Your task to perform on an android device: change the upload size in google photos Image 0: 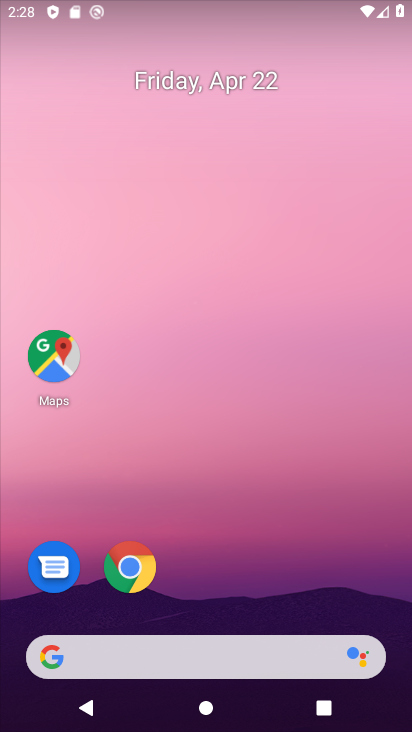
Step 0: drag from (230, 434) to (204, 120)
Your task to perform on an android device: change the upload size in google photos Image 1: 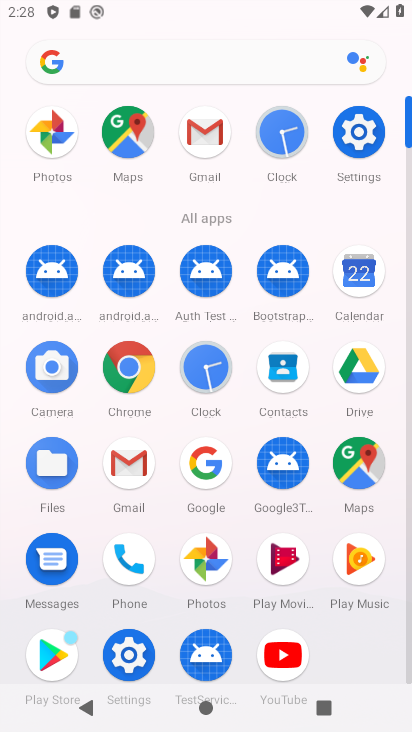
Step 1: drag from (174, 368) to (165, 272)
Your task to perform on an android device: change the upload size in google photos Image 2: 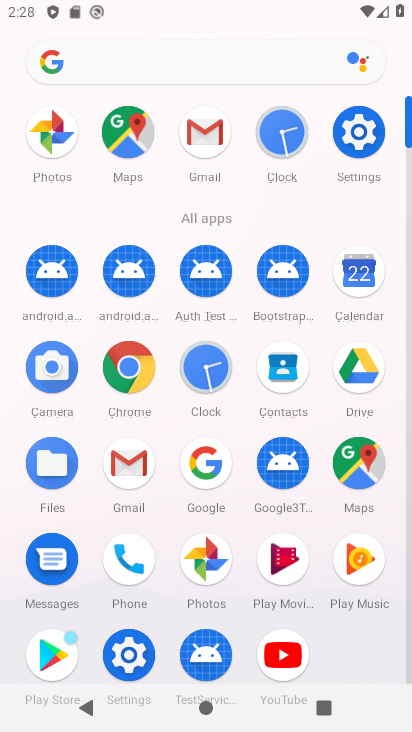
Step 2: click (192, 540)
Your task to perform on an android device: change the upload size in google photos Image 3: 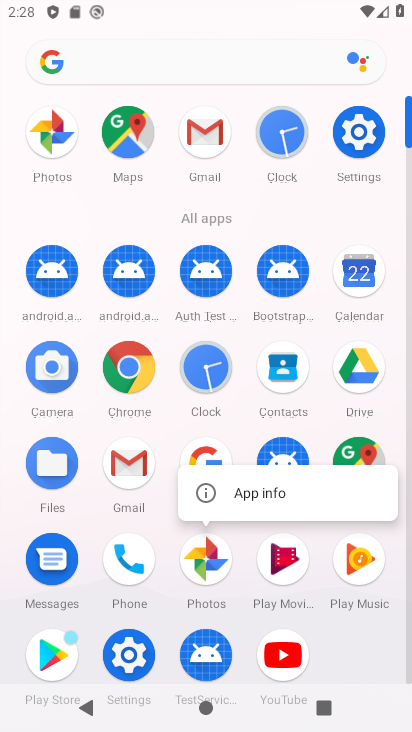
Step 3: click (205, 561)
Your task to perform on an android device: change the upload size in google photos Image 4: 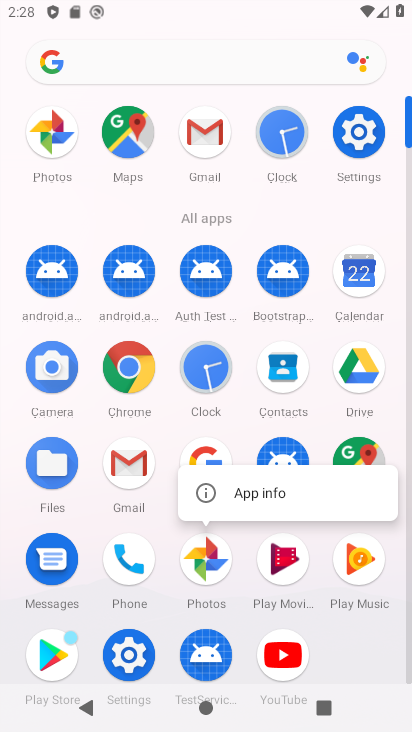
Step 4: click (204, 554)
Your task to perform on an android device: change the upload size in google photos Image 5: 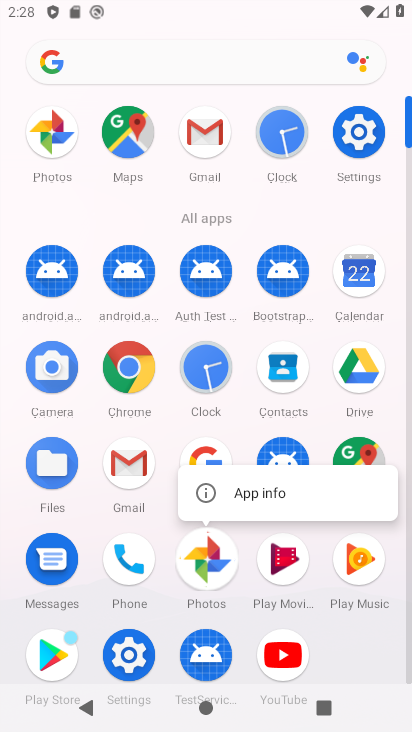
Step 5: click (214, 553)
Your task to perform on an android device: change the upload size in google photos Image 6: 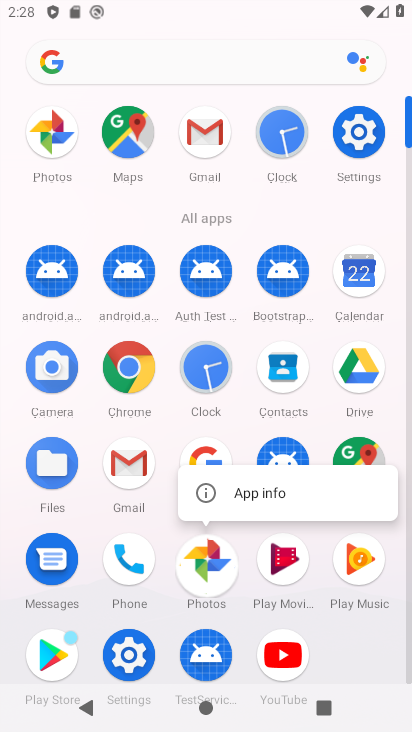
Step 6: click (214, 560)
Your task to perform on an android device: change the upload size in google photos Image 7: 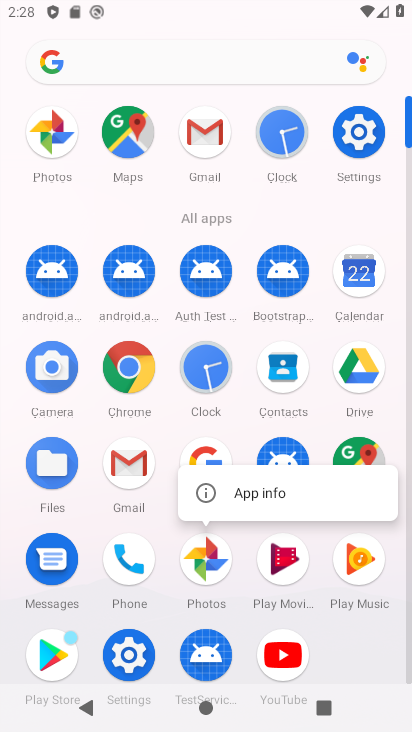
Step 7: click (210, 555)
Your task to perform on an android device: change the upload size in google photos Image 8: 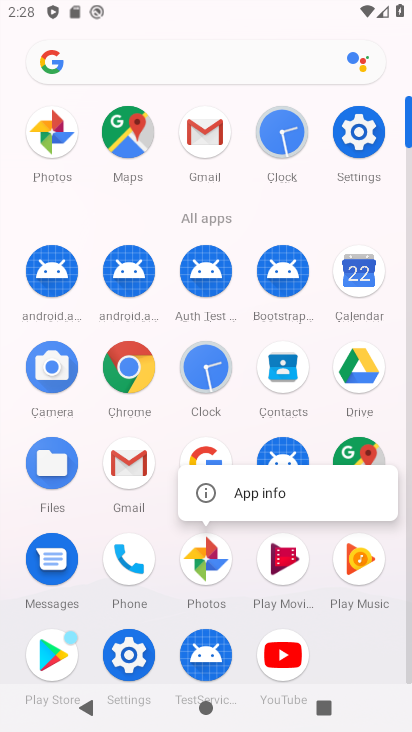
Step 8: click (202, 553)
Your task to perform on an android device: change the upload size in google photos Image 9: 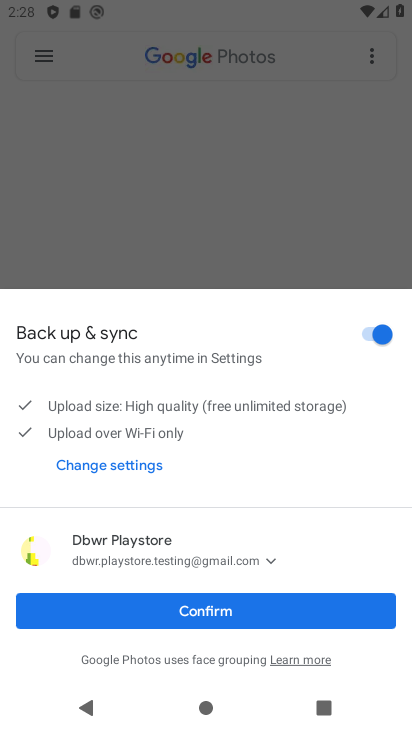
Step 9: click (219, 610)
Your task to perform on an android device: change the upload size in google photos Image 10: 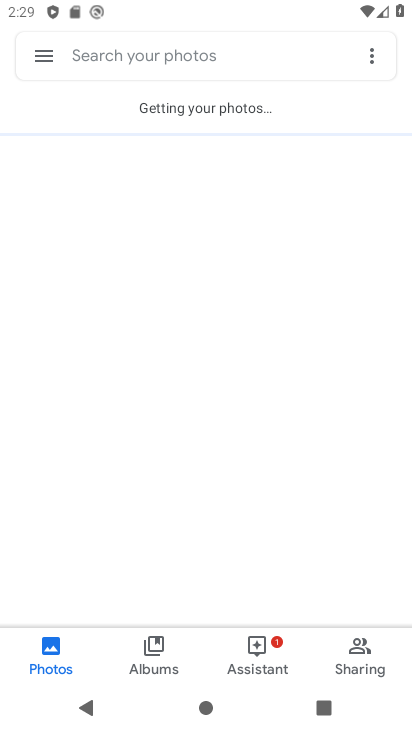
Step 10: click (42, 646)
Your task to perform on an android device: change the upload size in google photos Image 11: 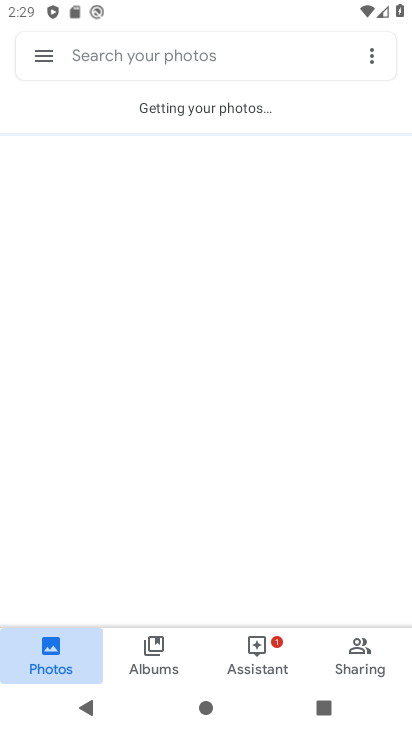
Step 11: click (146, 368)
Your task to perform on an android device: change the upload size in google photos Image 12: 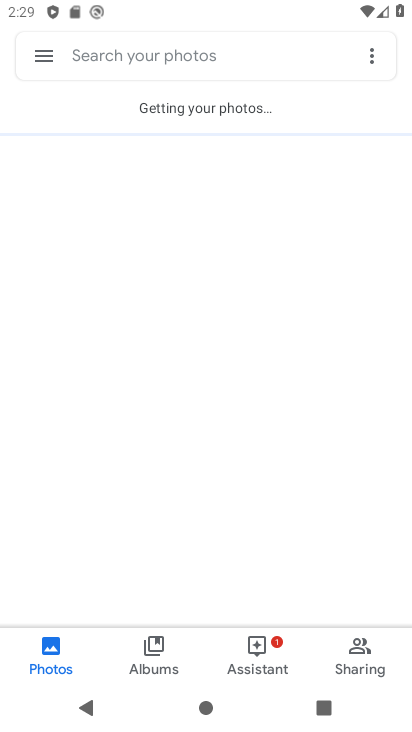
Step 12: click (254, 242)
Your task to perform on an android device: change the upload size in google photos Image 13: 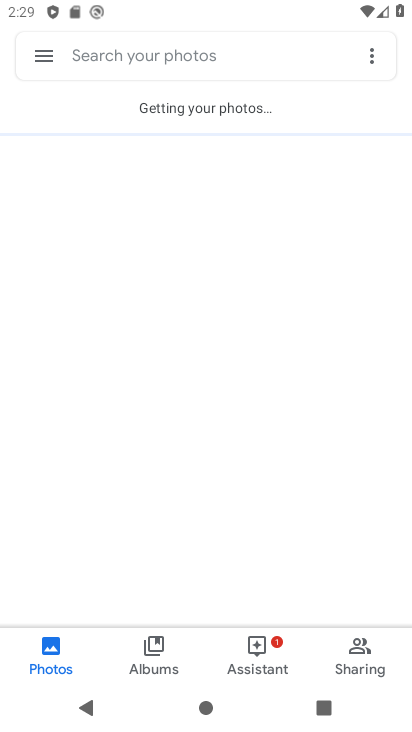
Step 13: drag from (36, 44) to (36, 438)
Your task to perform on an android device: change the upload size in google photos Image 14: 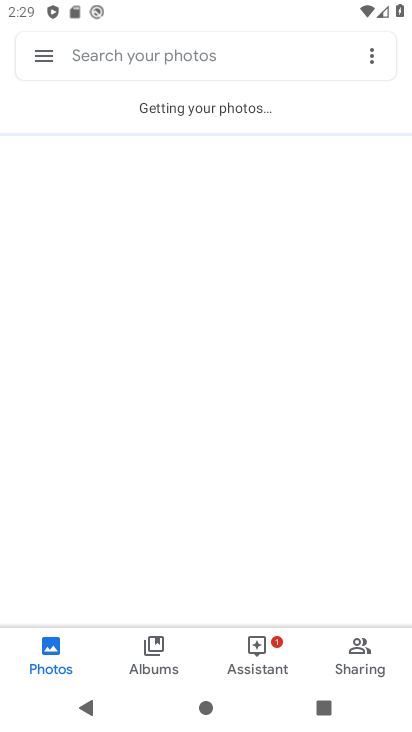
Step 14: click (43, 58)
Your task to perform on an android device: change the upload size in google photos Image 15: 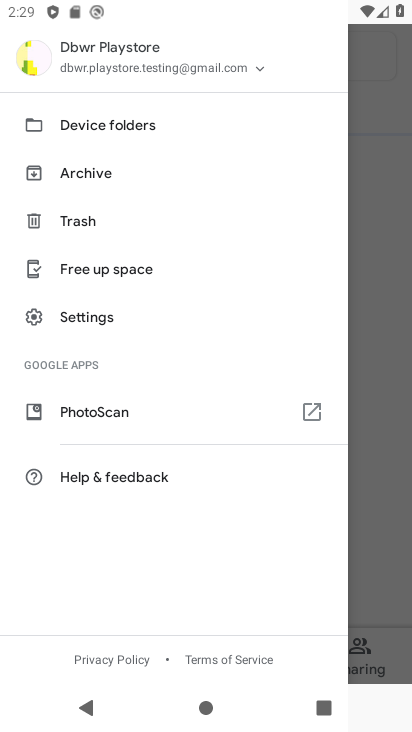
Step 15: click (89, 310)
Your task to perform on an android device: change the upload size in google photos Image 16: 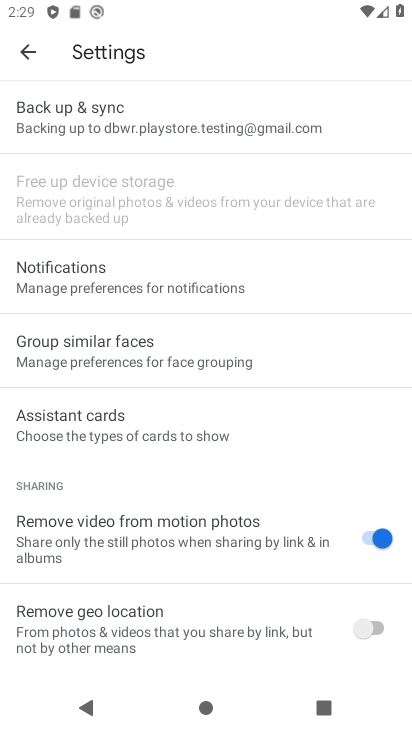
Step 16: click (95, 120)
Your task to perform on an android device: change the upload size in google photos Image 17: 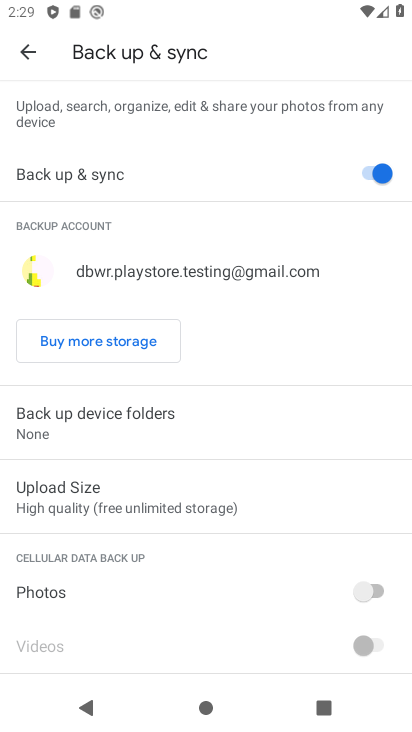
Step 17: click (106, 112)
Your task to perform on an android device: change the upload size in google photos Image 18: 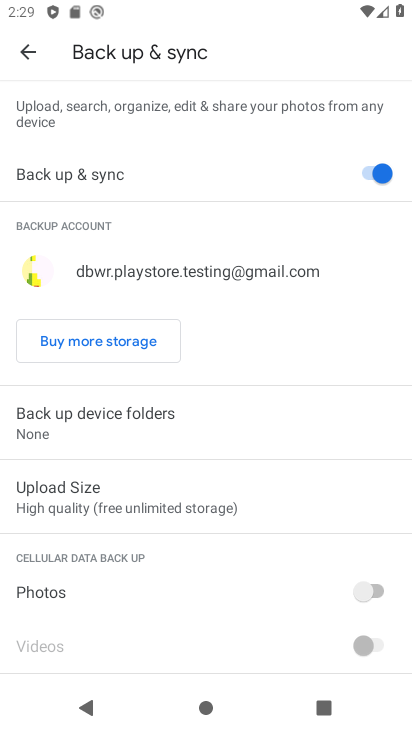
Step 18: click (141, 117)
Your task to perform on an android device: change the upload size in google photos Image 19: 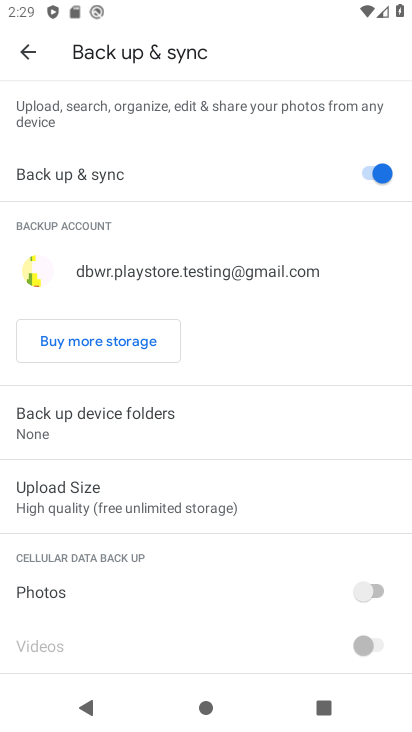
Step 19: click (76, 501)
Your task to perform on an android device: change the upload size in google photos Image 20: 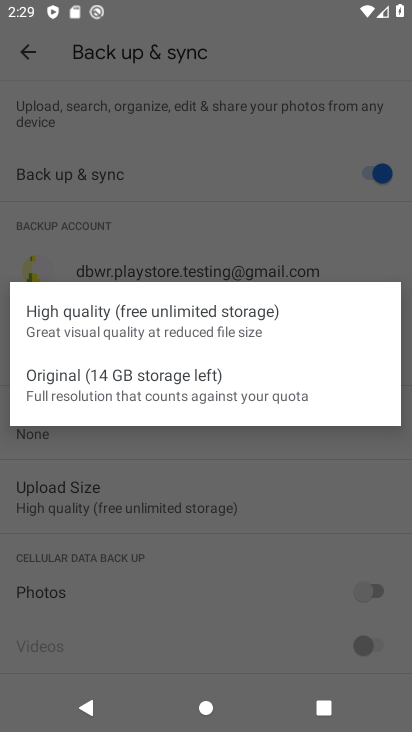
Step 20: click (116, 383)
Your task to perform on an android device: change the upload size in google photos Image 21: 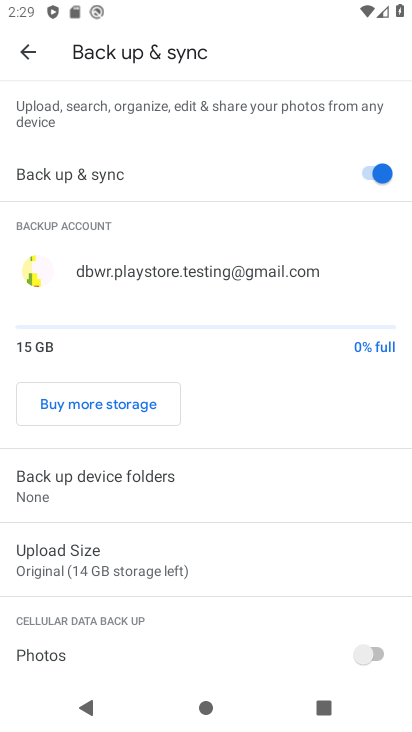
Step 21: click (88, 483)
Your task to perform on an android device: change the upload size in google photos Image 22: 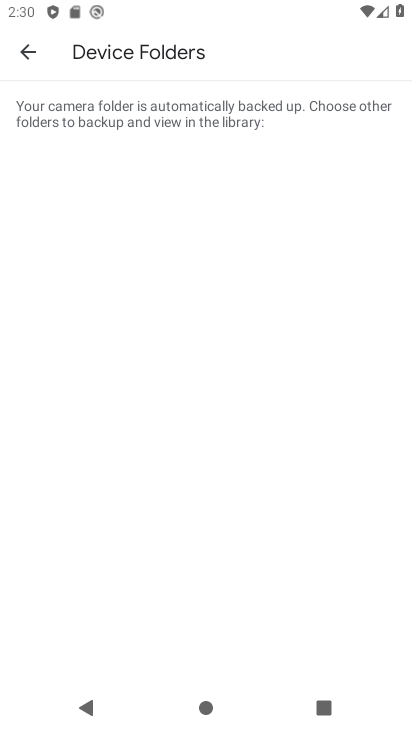
Step 22: click (30, 51)
Your task to perform on an android device: change the upload size in google photos Image 23: 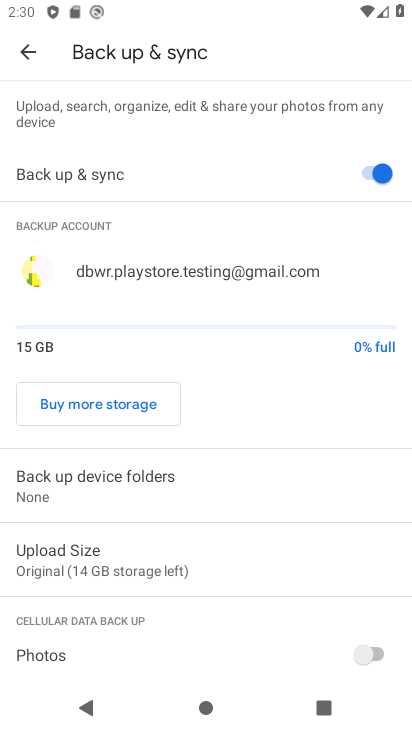
Step 23: click (94, 552)
Your task to perform on an android device: change the upload size in google photos Image 24: 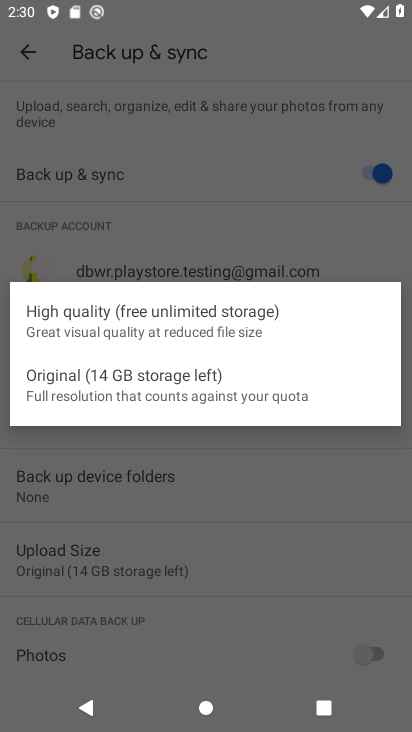
Step 24: click (150, 388)
Your task to perform on an android device: change the upload size in google photos Image 25: 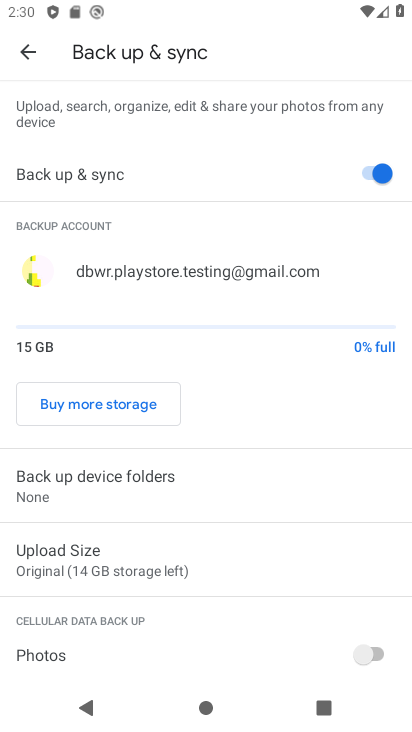
Step 25: task complete